Your task to perform on an android device: change the clock display to digital Image 0: 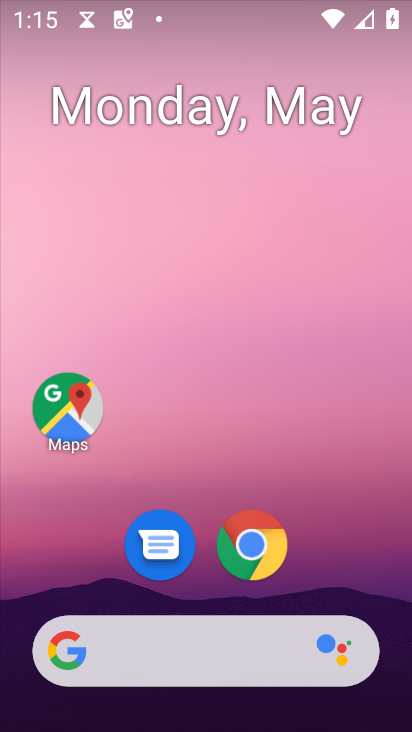
Step 0: drag from (329, 449) to (336, 224)
Your task to perform on an android device: change the clock display to digital Image 1: 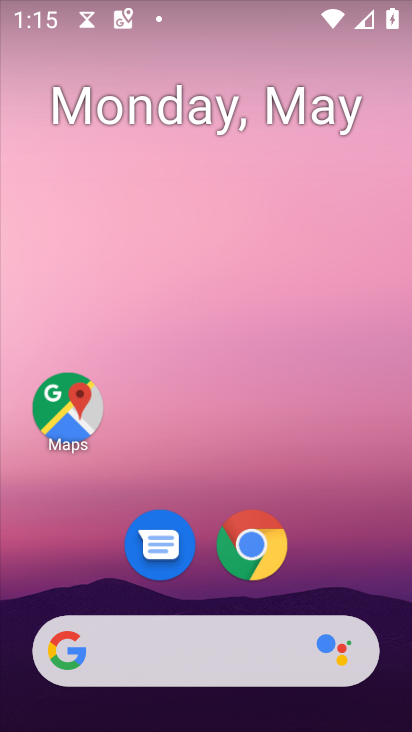
Step 1: drag from (352, 480) to (349, 274)
Your task to perform on an android device: change the clock display to digital Image 2: 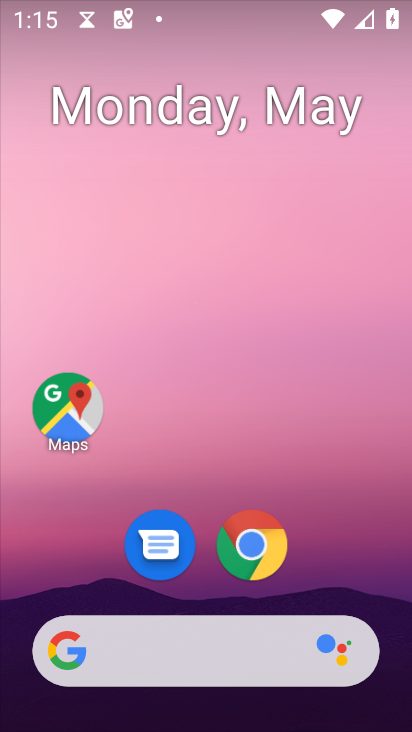
Step 2: drag from (343, 557) to (335, 165)
Your task to perform on an android device: change the clock display to digital Image 3: 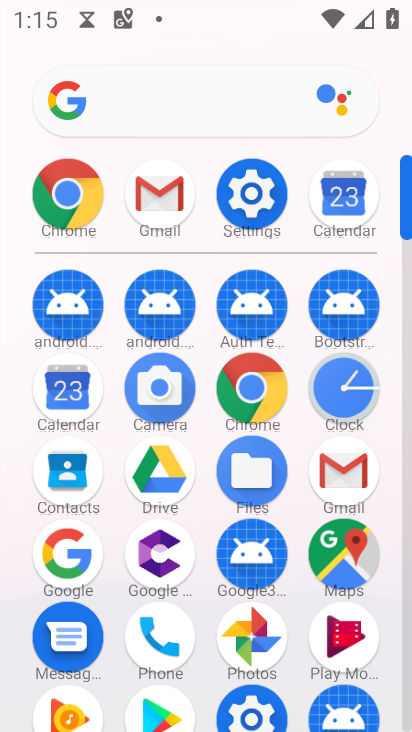
Step 3: click (338, 389)
Your task to perform on an android device: change the clock display to digital Image 4: 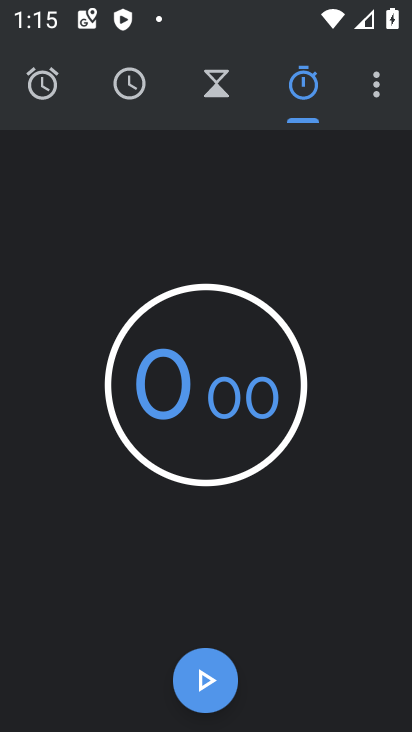
Step 4: click (370, 93)
Your task to perform on an android device: change the clock display to digital Image 5: 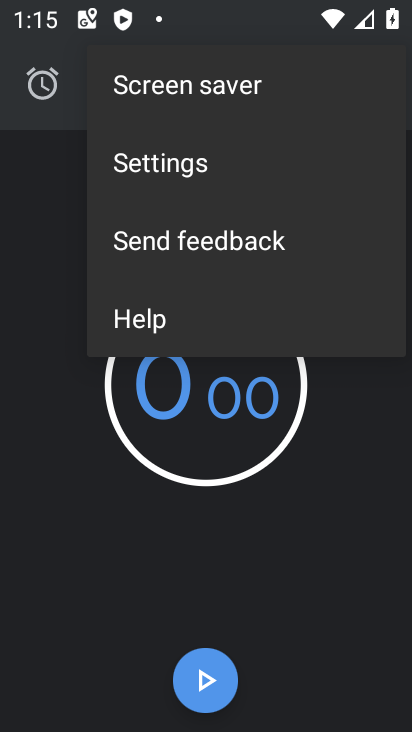
Step 5: click (204, 146)
Your task to perform on an android device: change the clock display to digital Image 6: 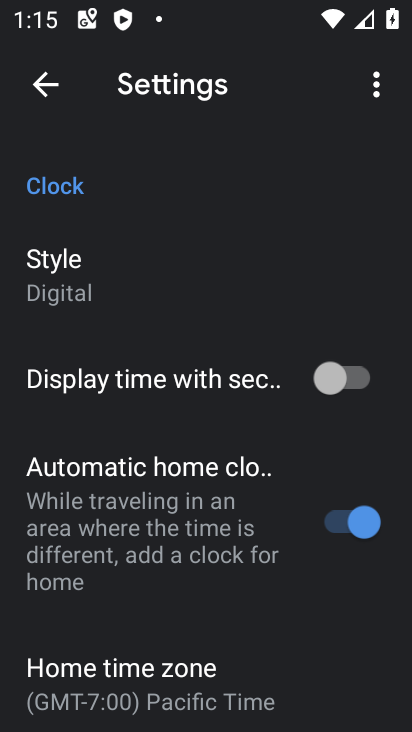
Step 6: click (64, 275)
Your task to perform on an android device: change the clock display to digital Image 7: 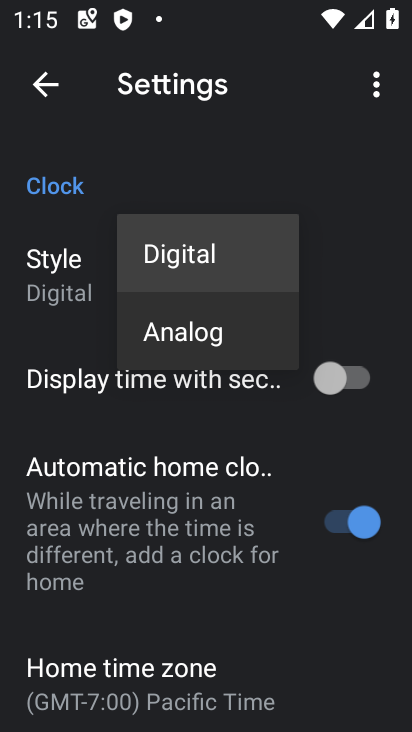
Step 7: click (186, 340)
Your task to perform on an android device: change the clock display to digital Image 8: 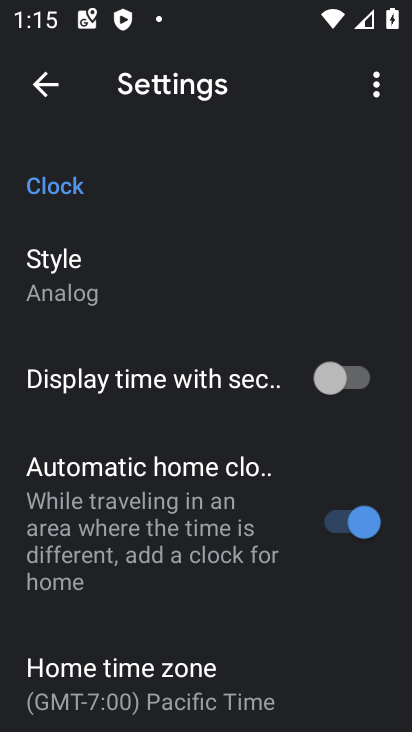
Step 8: task complete